Your task to perform on an android device: Search for Italian restaurants on Maps Image 0: 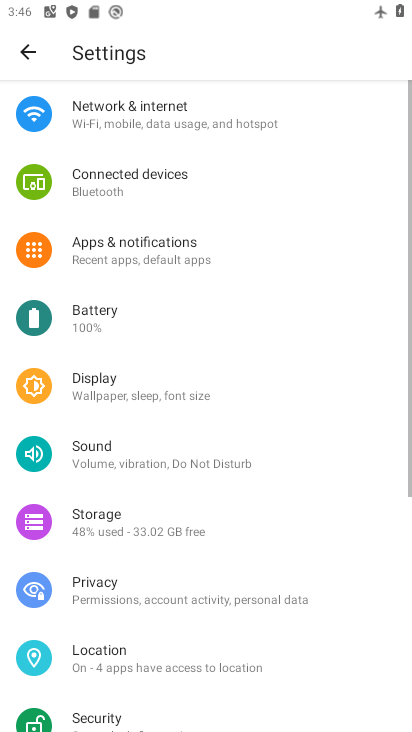
Step 0: press home button
Your task to perform on an android device: Search for Italian restaurants on Maps Image 1: 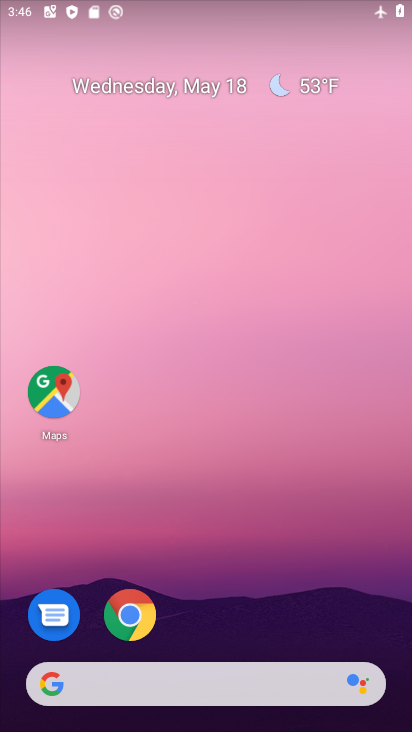
Step 1: click (65, 391)
Your task to perform on an android device: Search for Italian restaurants on Maps Image 2: 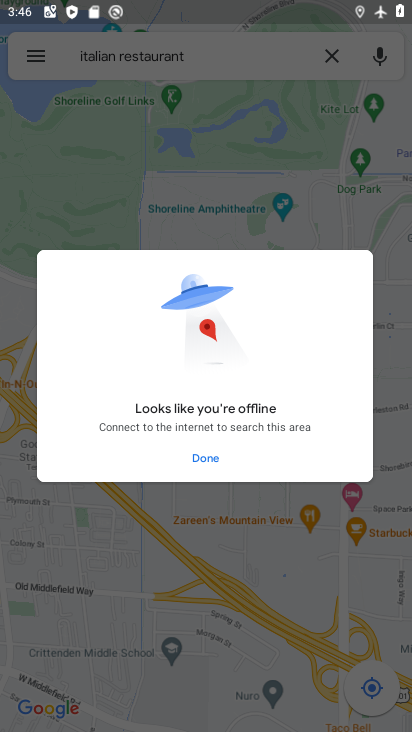
Step 2: click (208, 460)
Your task to perform on an android device: Search for Italian restaurants on Maps Image 3: 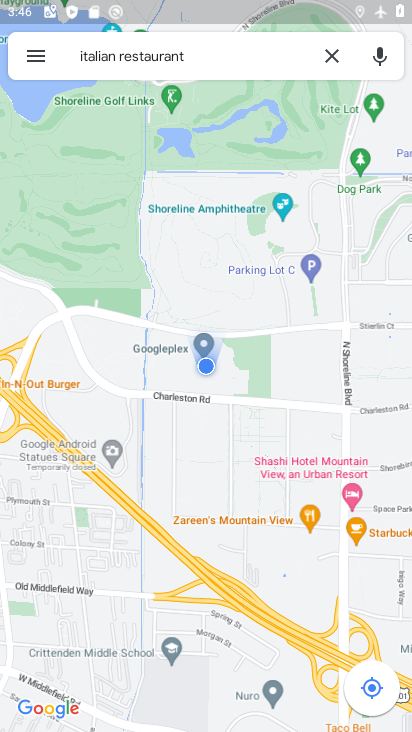
Step 3: click (248, 50)
Your task to perform on an android device: Search for Italian restaurants on Maps Image 4: 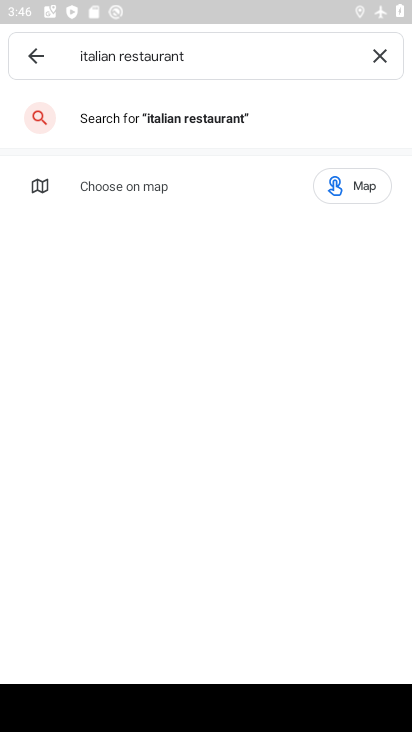
Step 4: click (192, 119)
Your task to perform on an android device: Search for Italian restaurants on Maps Image 5: 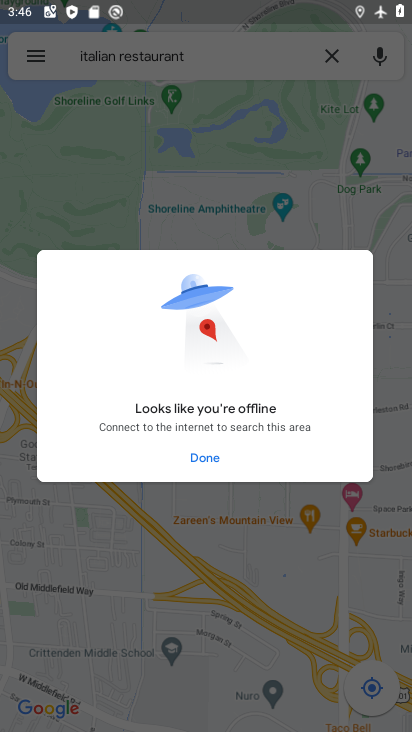
Step 5: task complete